Your task to perform on an android device: Is it going to rain today? Image 0: 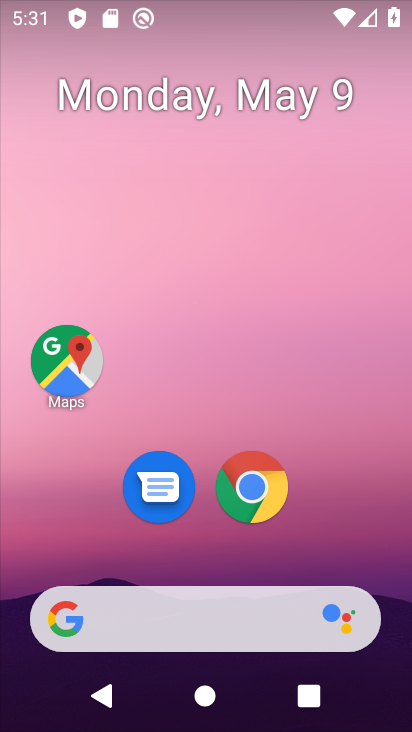
Step 0: drag from (296, 543) to (250, 161)
Your task to perform on an android device: Is it going to rain today? Image 1: 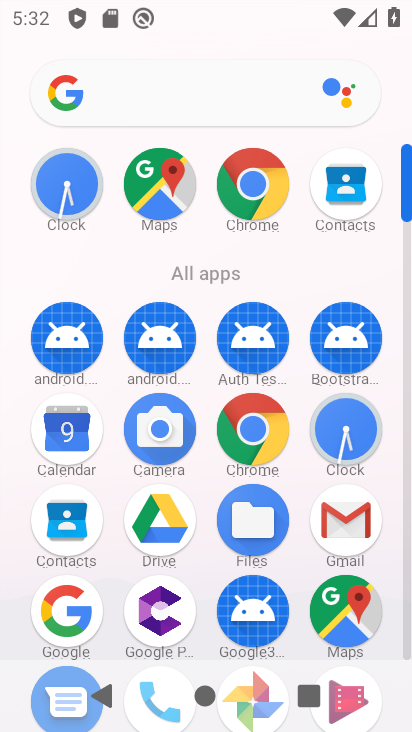
Step 1: click (64, 634)
Your task to perform on an android device: Is it going to rain today? Image 2: 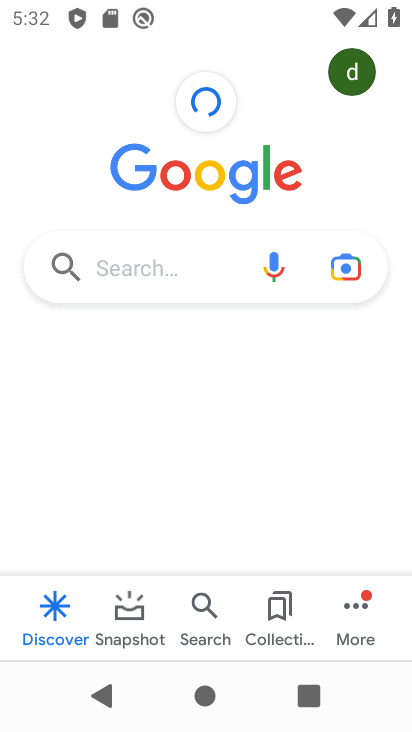
Step 2: click (155, 277)
Your task to perform on an android device: Is it going to rain today? Image 3: 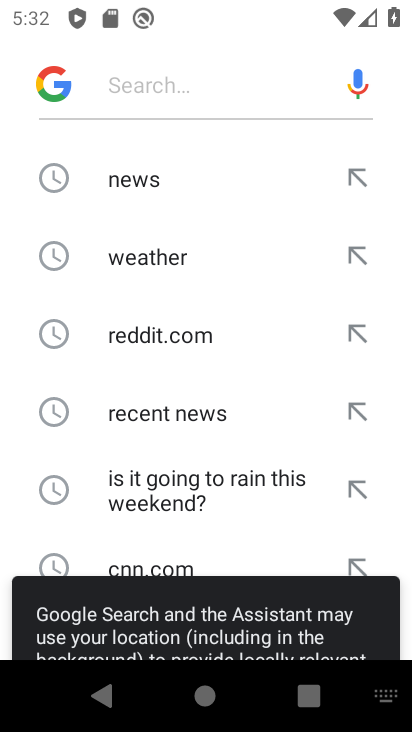
Step 3: click (137, 260)
Your task to perform on an android device: Is it going to rain today? Image 4: 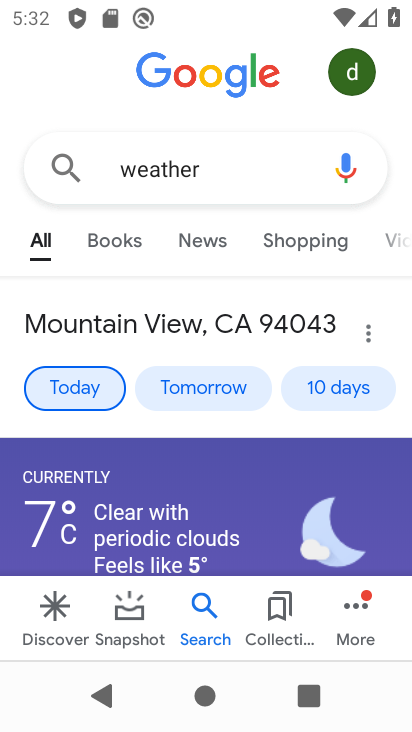
Step 4: task complete